Your task to perform on an android device: Go to CNN.com Image 0: 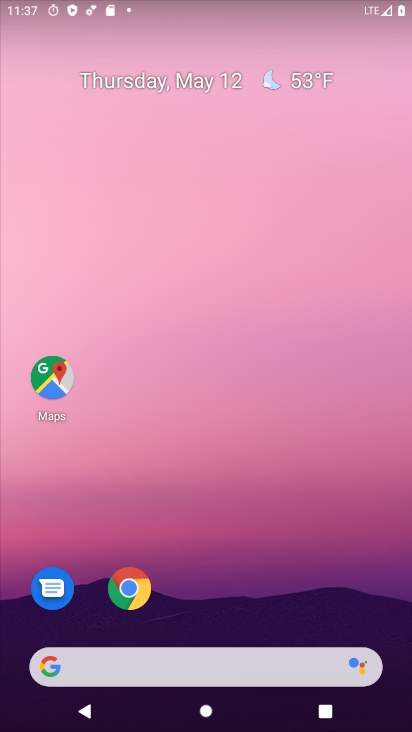
Step 0: click (130, 587)
Your task to perform on an android device: Go to CNN.com Image 1: 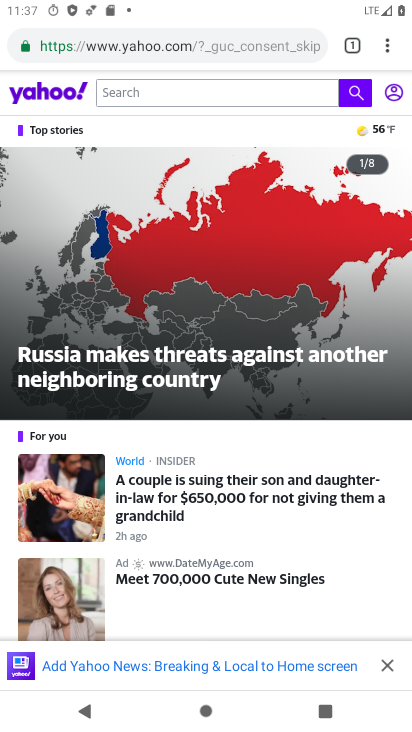
Step 1: click (255, 34)
Your task to perform on an android device: Go to CNN.com Image 2: 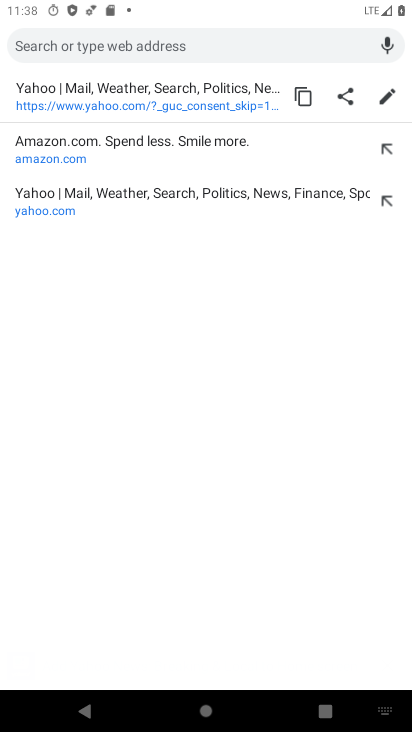
Step 2: type "cnn.com"
Your task to perform on an android device: Go to CNN.com Image 3: 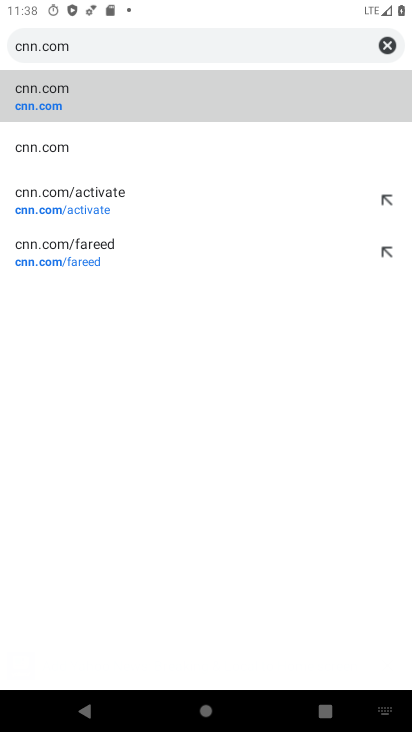
Step 3: click (31, 99)
Your task to perform on an android device: Go to CNN.com Image 4: 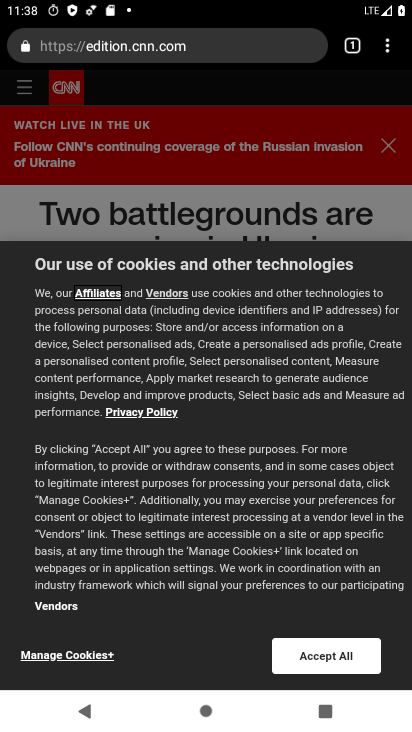
Step 4: task complete